Your task to perform on an android device: turn off notifications settings in the gmail app Image 0: 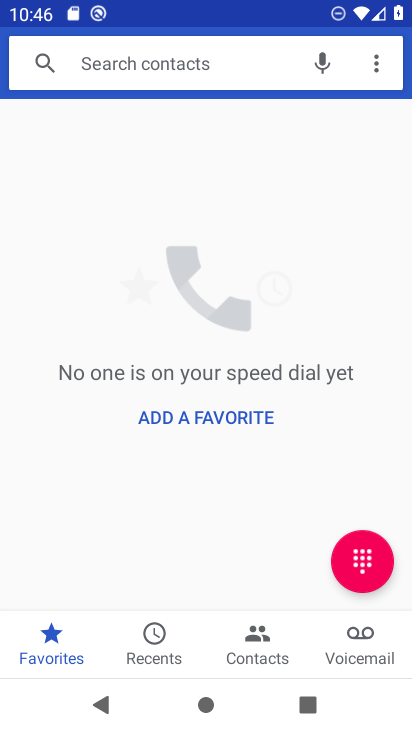
Step 0: press back button
Your task to perform on an android device: turn off notifications settings in the gmail app Image 1: 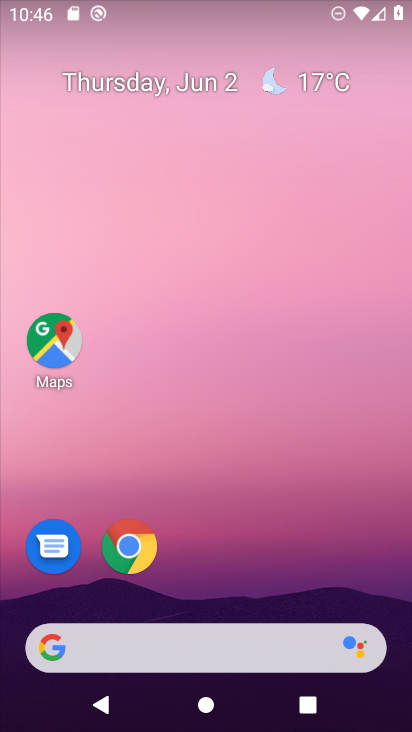
Step 1: drag from (243, 482) to (237, 0)
Your task to perform on an android device: turn off notifications settings in the gmail app Image 2: 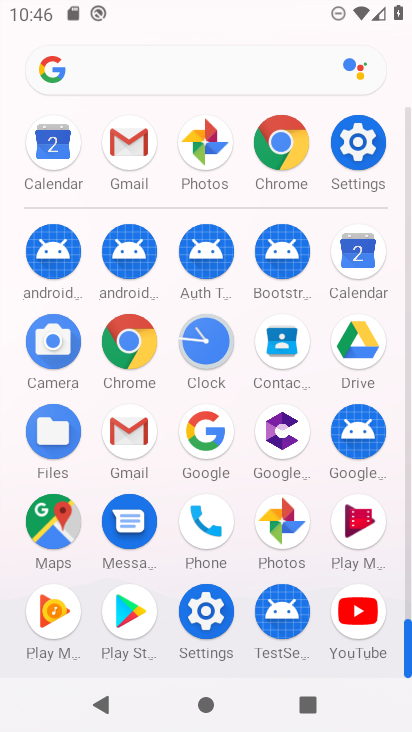
Step 2: click (130, 426)
Your task to perform on an android device: turn off notifications settings in the gmail app Image 3: 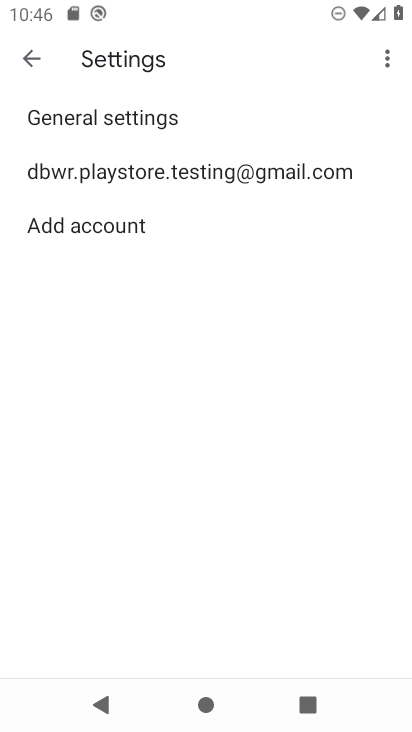
Step 3: click (29, 56)
Your task to perform on an android device: turn off notifications settings in the gmail app Image 4: 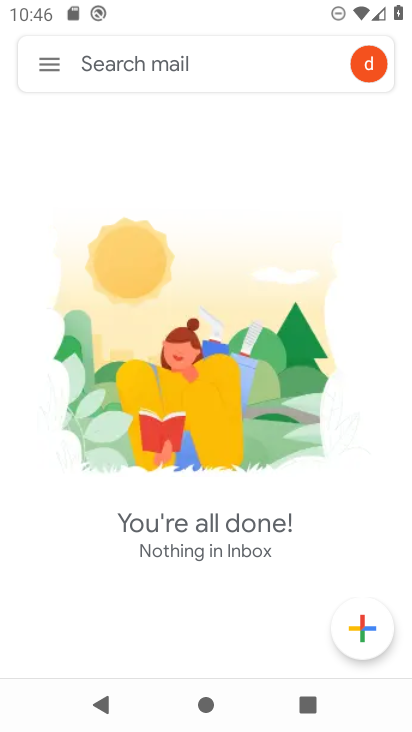
Step 4: click (33, 58)
Your task to perform on an android device: turn off notifications settings in the gmail app Image 5: 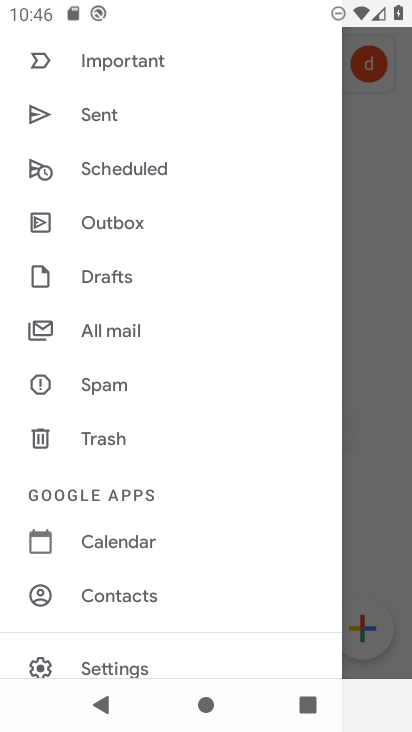
Step 5: click (109, 653)
Your task to perform on an android device: turn off notifications settings in the gmail app Image 6: 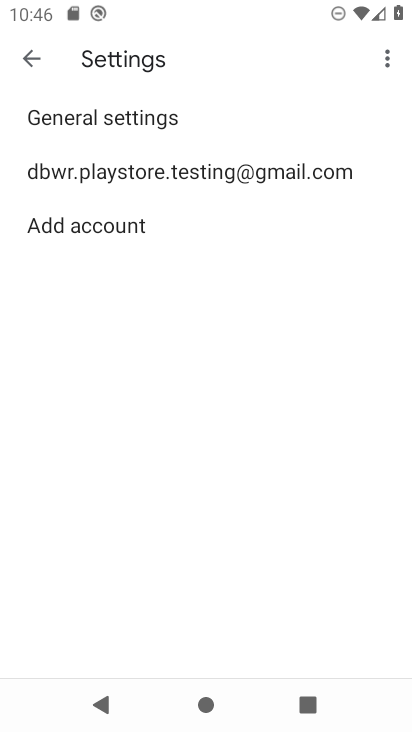
Step 6: click (108, 163)
Your task to perform on an android device: turn off notifications settings in the gmail app Image 7: 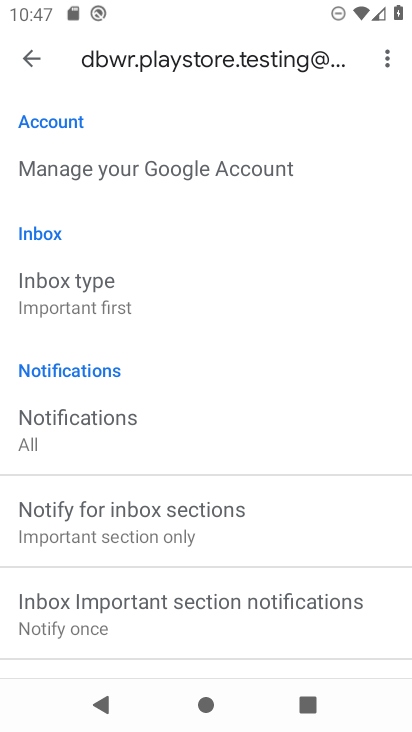
Step 7: drag from (229, 579) to (234, 199)
Your task to perform on an android device: turn off notifications settings in the gmail app Image 8: 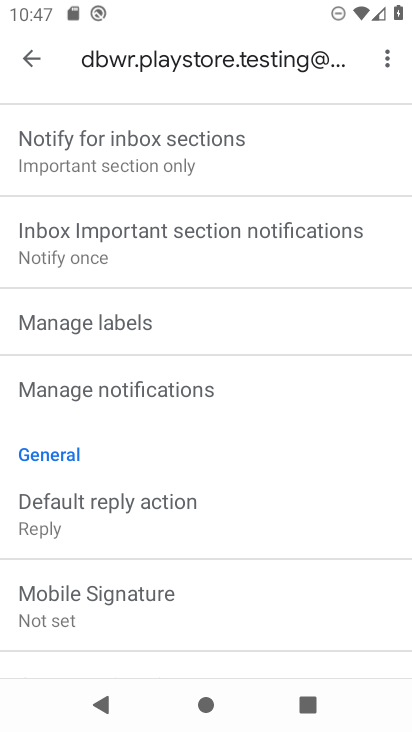
Step 8: click (194, 382)
Your task to perform on an android device: turn off notifications settings in the gmail app Image 9: 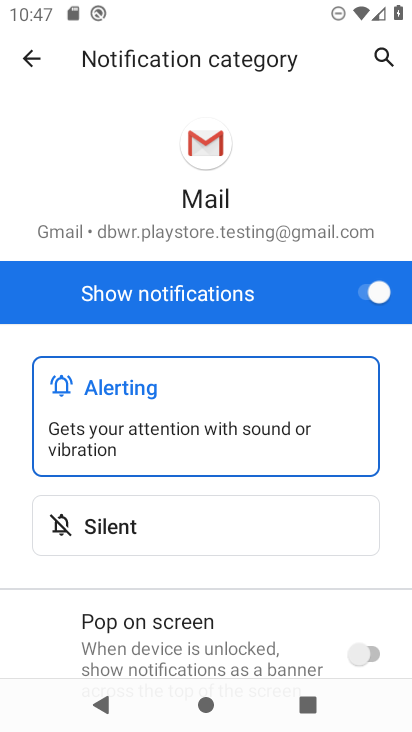
Step 9: click (360, 291)
Your task to perform on an android device: turn off notifications settings in the gmail app Image 10: 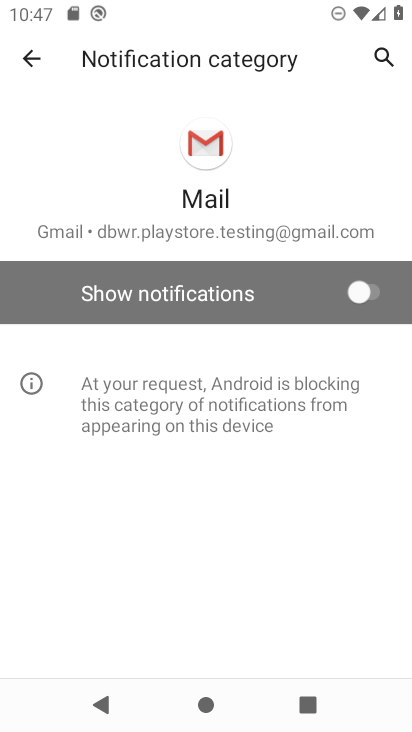
Step 10: task complete